Your task to perform on an android device: toggle improve location accuracy Image 0: 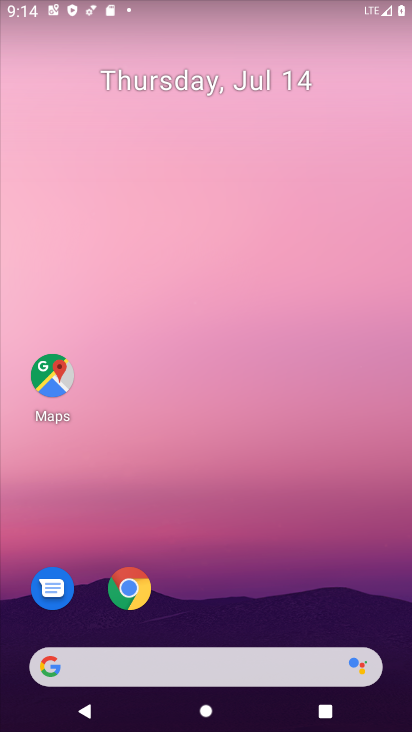
Step 0: drag from (342, 620) to (193, 57)
Your task to perform on an android device: toggle improve location accuracy Image 1: 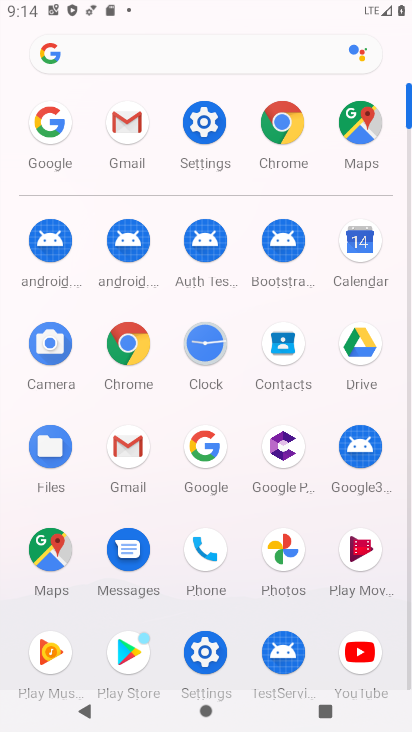
Step 1: click (217, 652)
Your task to perform on an android device: toggle improve location accuracy Image 2: 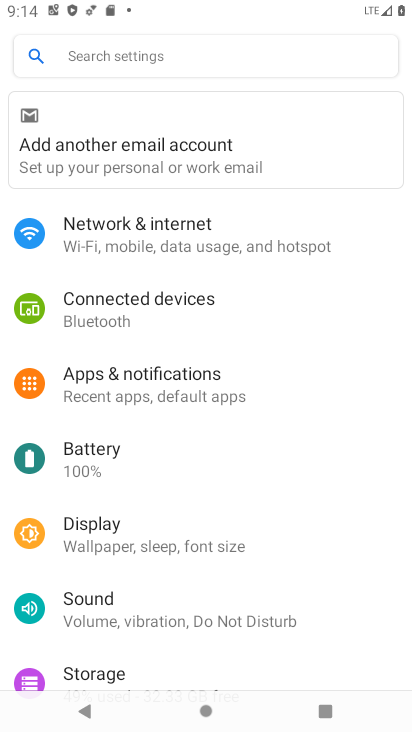
Step 2: drag from (147, 626) to (161, 170)
Your task to perform on an android device: toggle improve location accuracy Image 3: 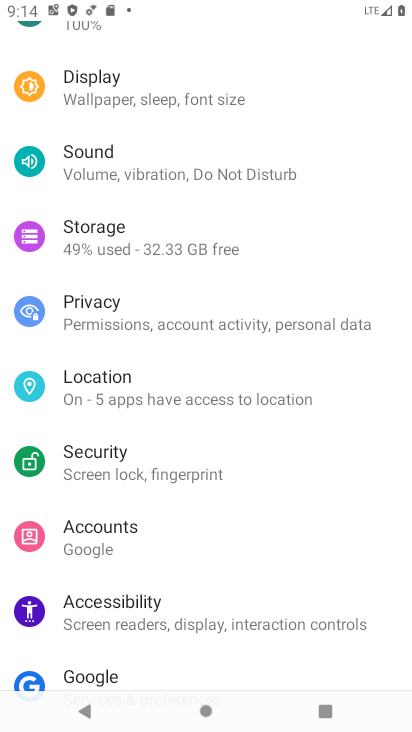
Step 3: click (91, 396)
Your task to perform on an android device: toggle improve location accuracy Image 4: 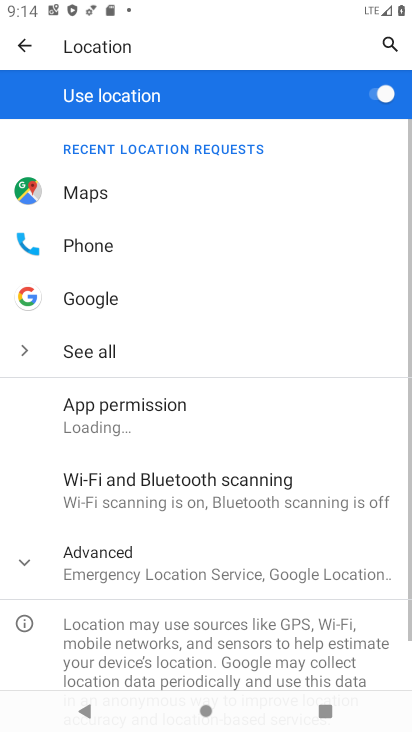
Step 4: click (109, 555)
Your task to perform on an android device: toggle improve location accuracy Image 5: 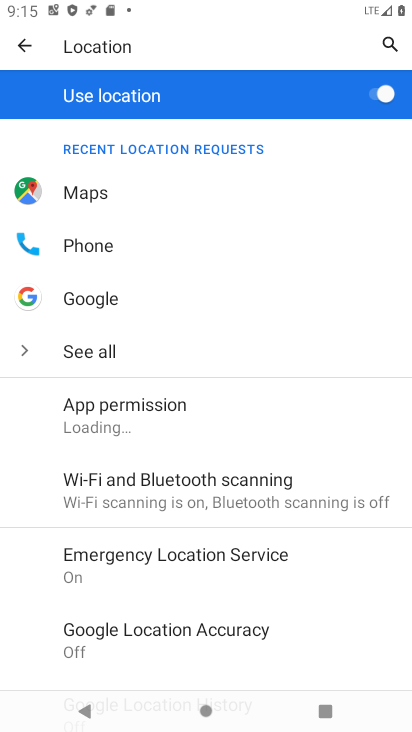
Step 5: click (209, 630)
Your task to perform on an android device: toggle improve location accuracy Image 6: 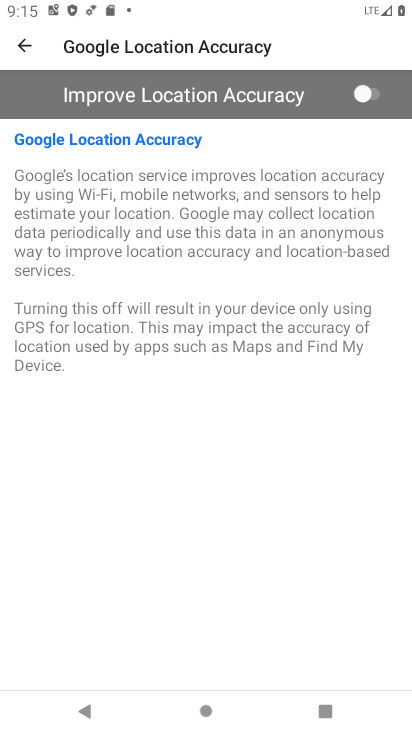
Step 6: click (373, 90)
Your task to perform on an android device: toggle improve location accuracy Image 7: 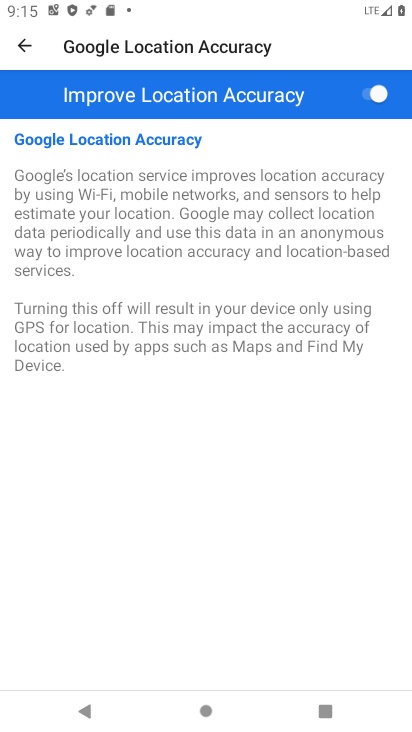
Step 7: task complete